Your task to perform on an android device: Open Youtube and go to "Your channel" Image 0: 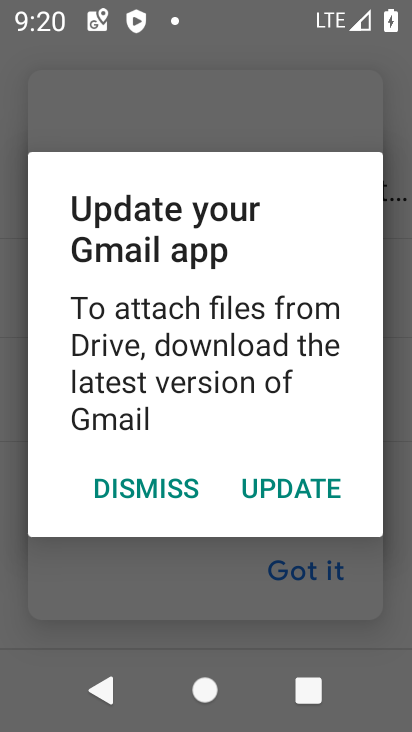
Step 0: drag from (66, 573) to (119, 616)
Your task to perform on an android device: Open Youtube and go to "Your channel" Image 1: 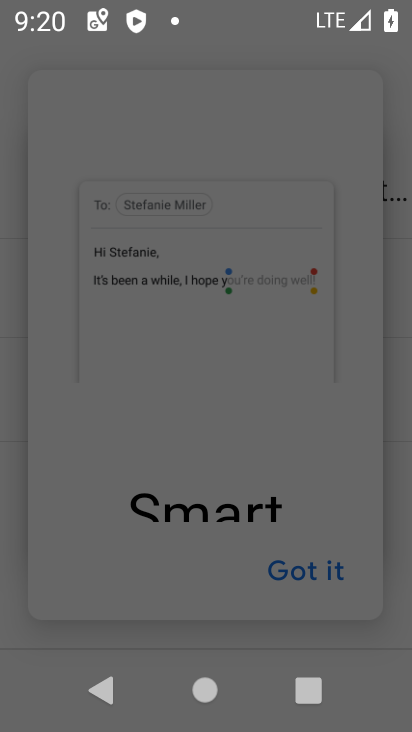
Step 1: press home button
Your task to perform on an android device: Open Youtube and go to "Your channel" Image 2: 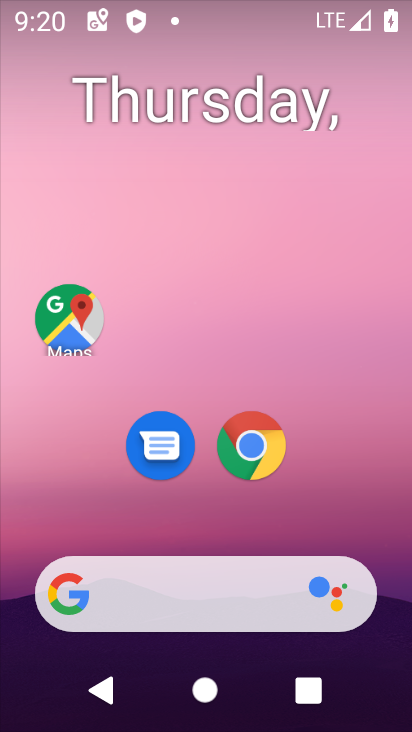
Step 2: drag from (88, 559) to (197, 127)
Your task to perform on an android device: Open Youtube and go to "Your channel" Image 3: 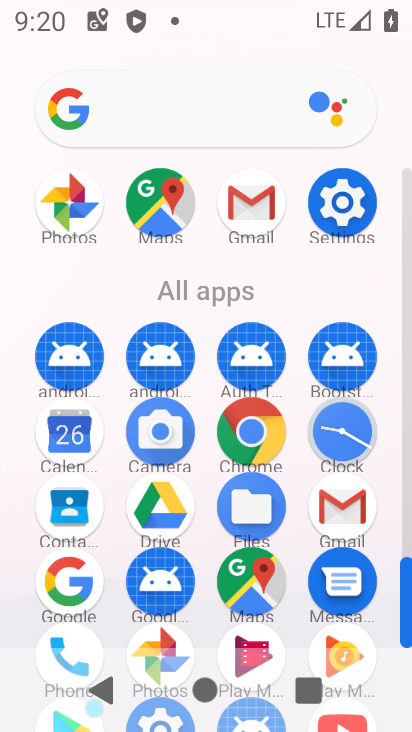
Step 3: drag from (216, 623) to (309, 307)
Your task to perform on an android device: Open Youtube and go to "Your channel" Image 4: 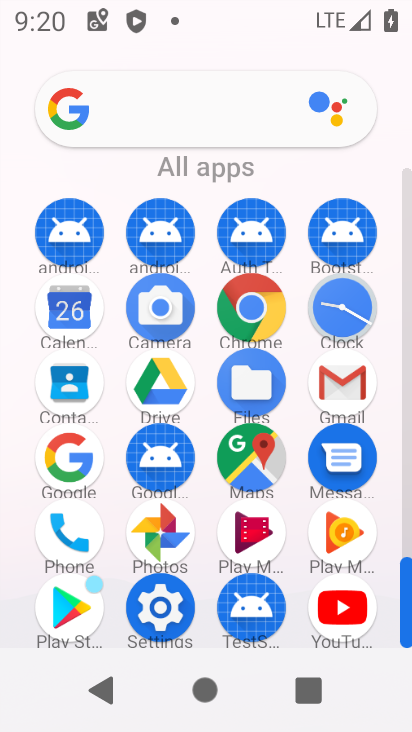
Step 4: click (340, 623)
Your task to perform on an android device: Open Youtube and go to "Your channel" Image 5: 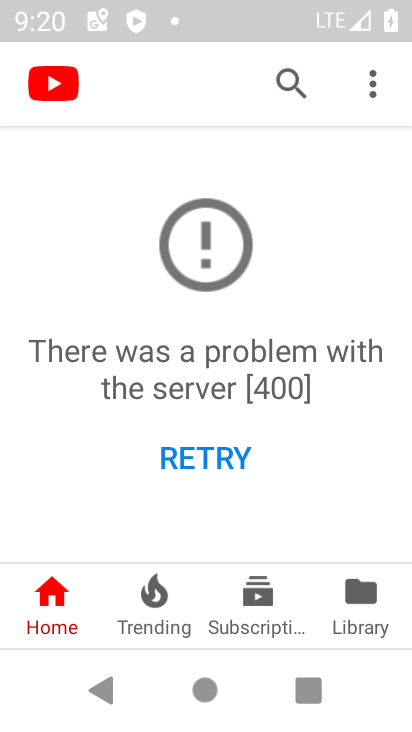
Step 5: task complete